Your task to perform on an android device: toggle improve location accuracy Image 0: 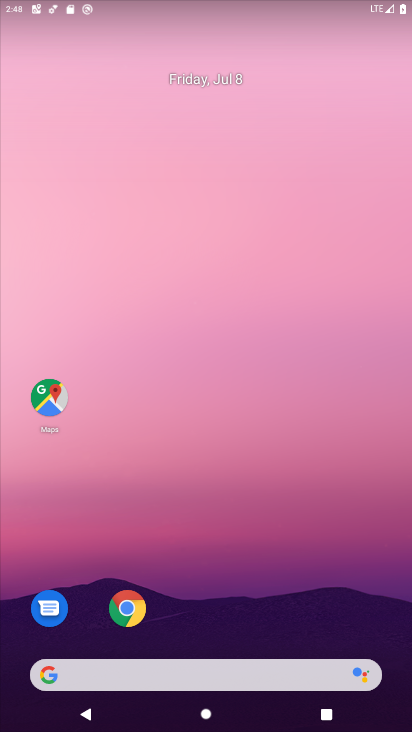
Step 0: drag from (239, 619) to (225, 318)
Your task to perform on an android device: toggle improve location accuracy Image 1: 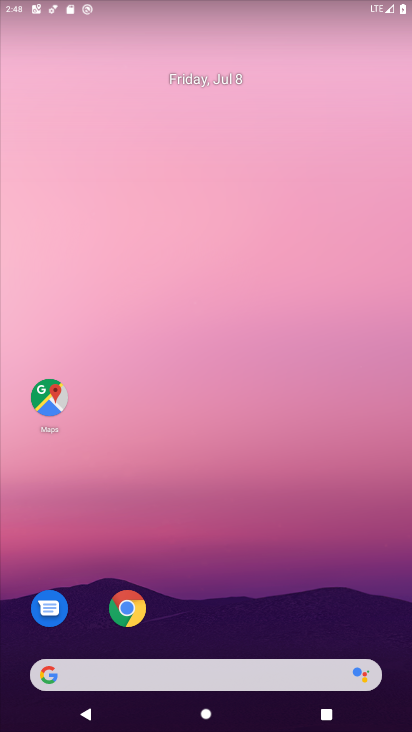
Step 1: drag from (238, 632) to (226, 208)
Your task to perform on an android device: toggle improve location accuracy Image 2: 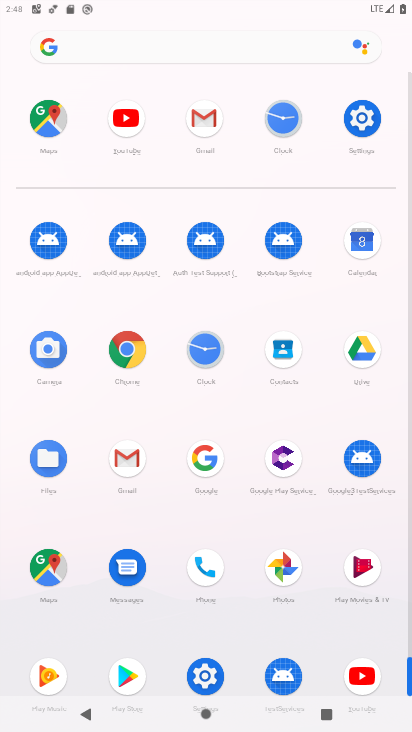
Step 2: click (356, 105)
Your task to perform on an android device: toggle improve location accuracy Image 3: 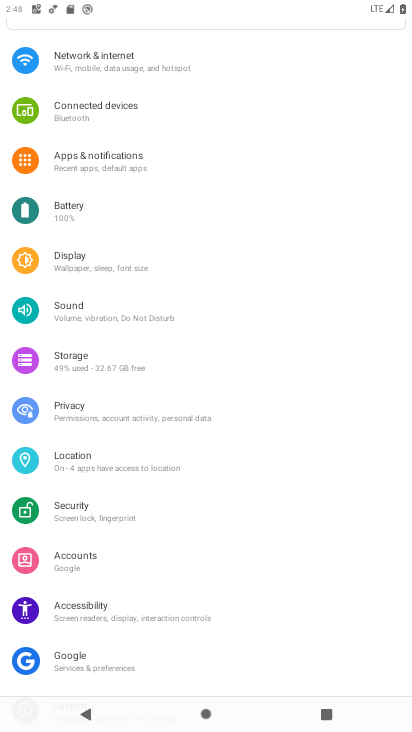
Step 3: click (114, 452)
Your task to perform on an android device: toggle improve location accuracy Image 4: 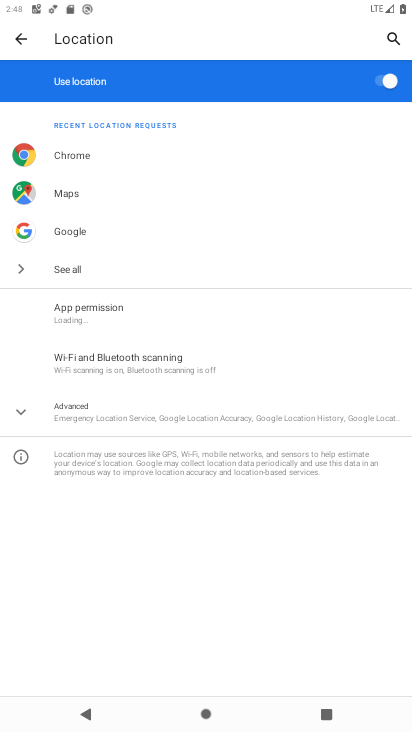
Step 4: click (198, 406)
Your task to perform on an android device: toggle improve location accuracy Image 5: 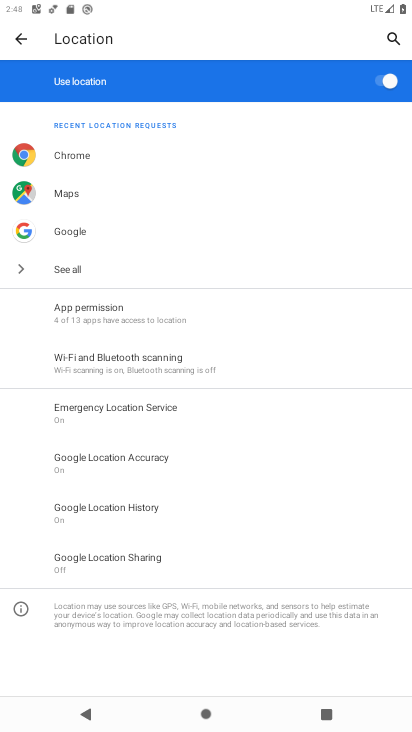
Step 5: click (154, 468)
Your task to perform on an android device: toggle improve location accuracy Image 6: 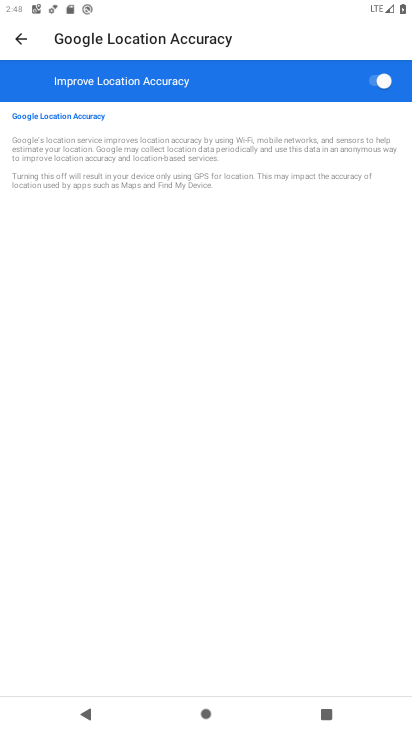
Step 6: click (379, 83)
Your task to perform on an android device: toggle improve location accuracy Image 7: 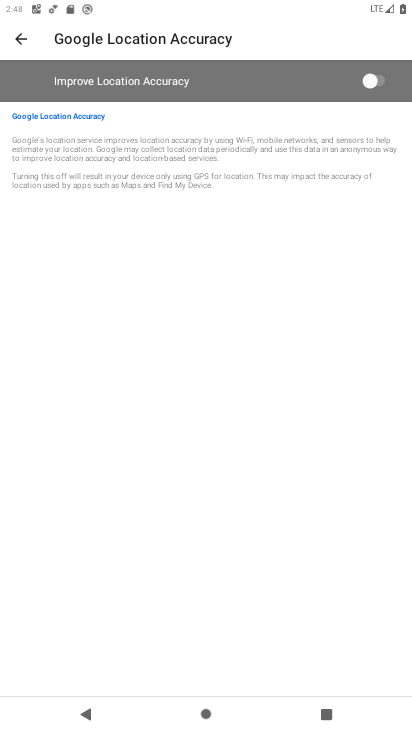
Step 7: task complete